Your task to perform on an android device: Open calendar and show me the first week of next month Image 0: 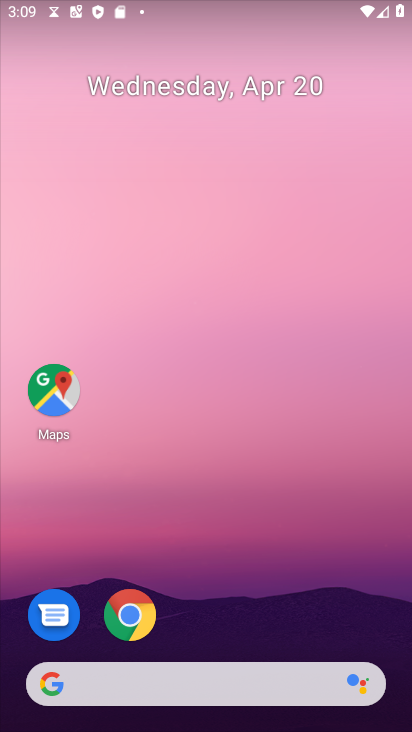
Step 0: drag from (196, 534) to (236, 162)
Your task to perform on an android device: Open calendar and show me the first week of next month Image 1: 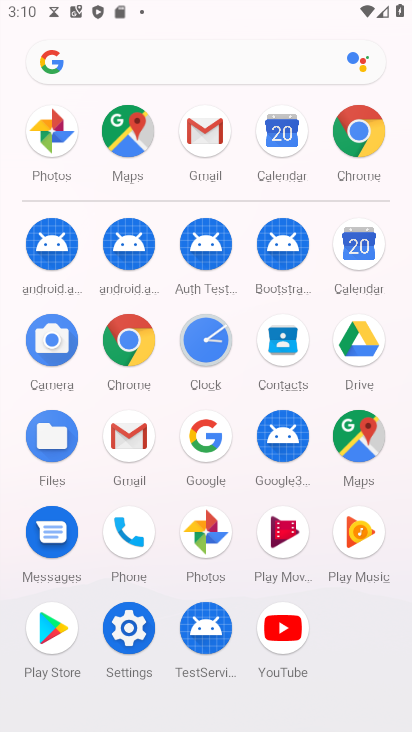
Step 1: click (366, 239)
Your task to perform on an android device: Open calendar and show me the first week of next month Image 2: 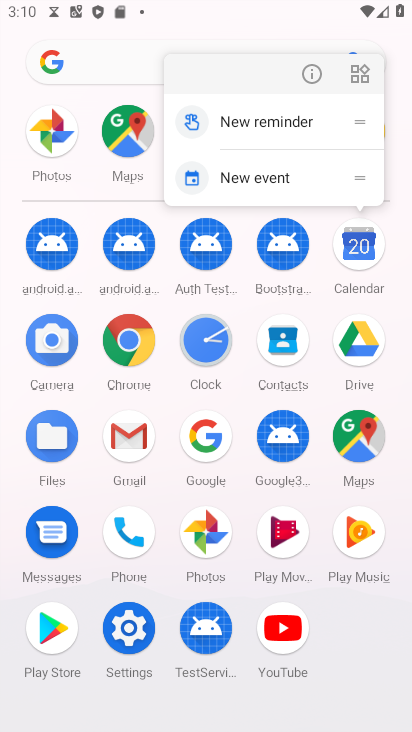
Step 2: click (301, 72)
Your task to perform on an android device: Open calendar and show me the first week of next month Image 3: 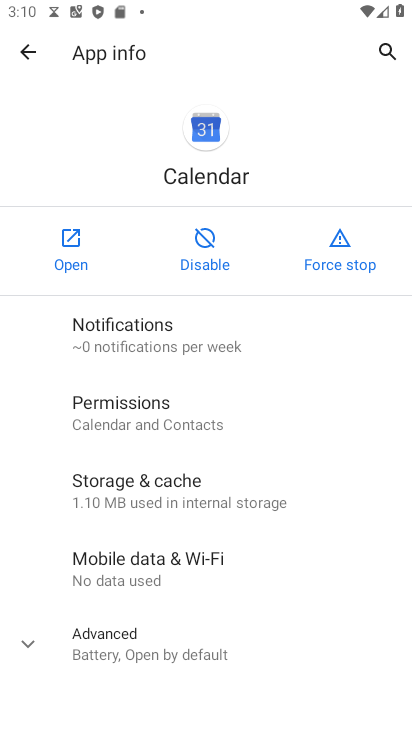
Step 3: click (78, 250)
Your task to perform on an android device: Open calendar and show me the first week of next month Image 4: 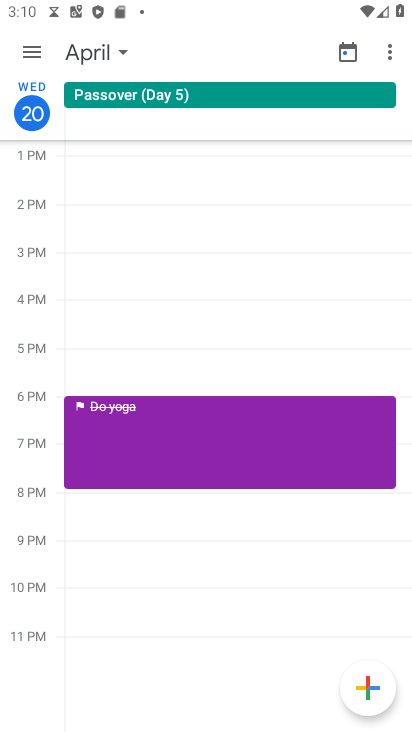
Step 4: drag from (194, 486) to (283, 83)
Your task to perform on an android device: Open calendar and show me the first week of next month Image 5: 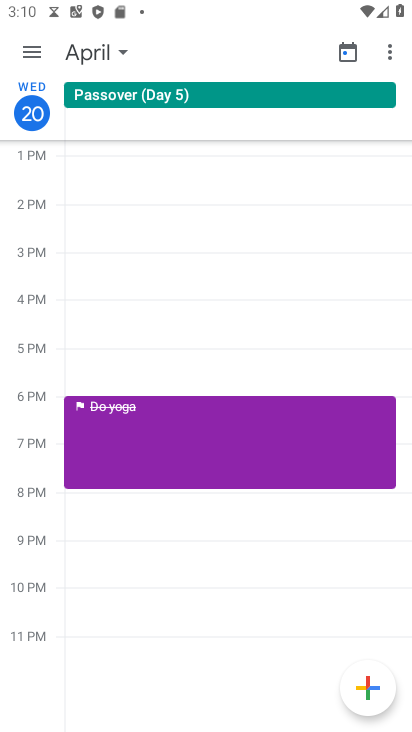
Step 5: drag from (228, 586) to (331, 116)
Your task to perform on an android device: Open calendar and show me the first week of next month Image 6: 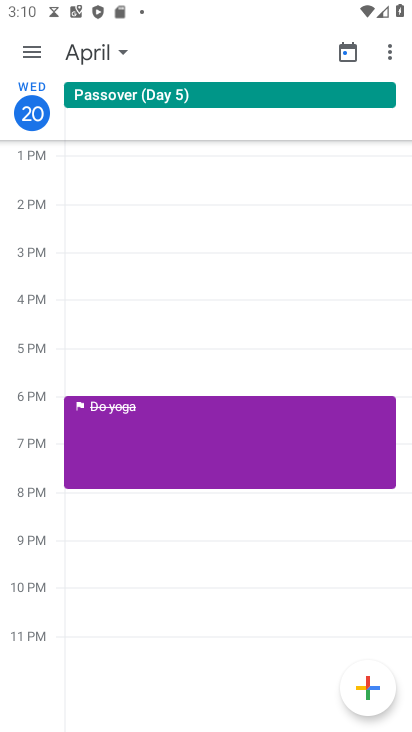
Step 6: drag from (180, 638) to (255, 321)
Your task to perform on an android device: Open calendar and show me the first week of next month Image 7: 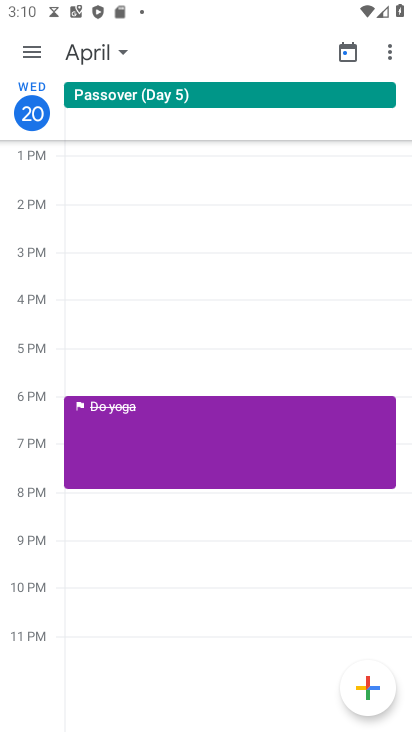
Step 7: click (88, 51)
Your task to perform on an android device: Open calendar and show me the first week of next month Image 8: 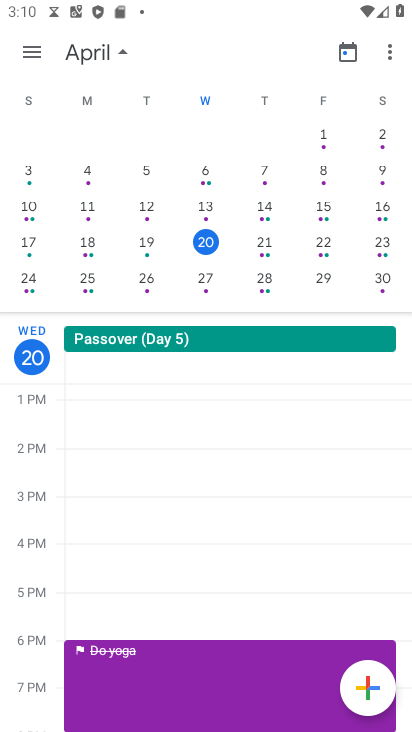
Step 8: drag from (323, 262) to (7, 248)
Your task to perform on an android device: Open calendar and show me the first week of next month Image 9: 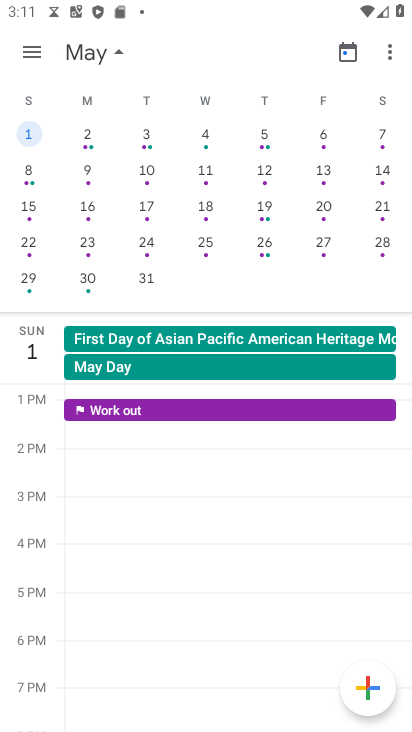
Step 9: click (263, 135)
Your task to perform on an android device: Open calendar and show me the first week of next month Image 10: 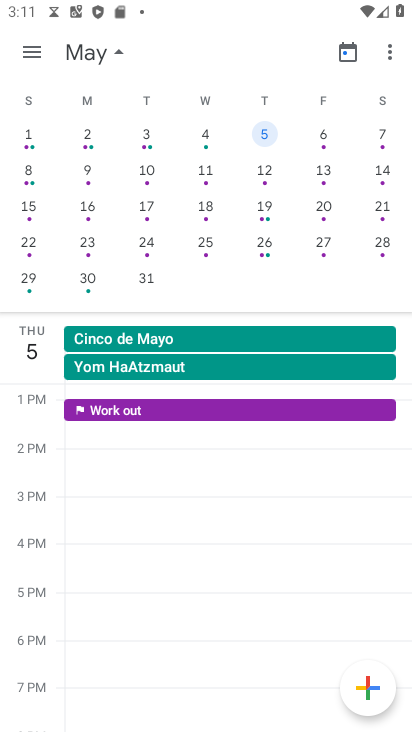
Step 10: click (206, 130)
Your task to perform on an android device: Open calendar and show me the first week of next month Image 11: 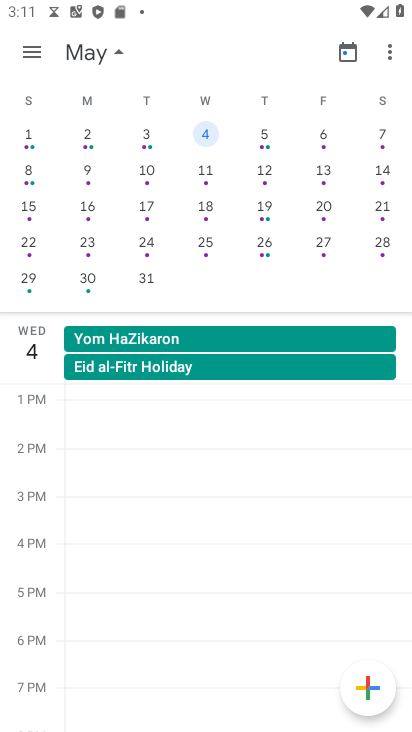
Step 11: task complete